Your task to perform on an android device: What's on my calendar today? Image 0: 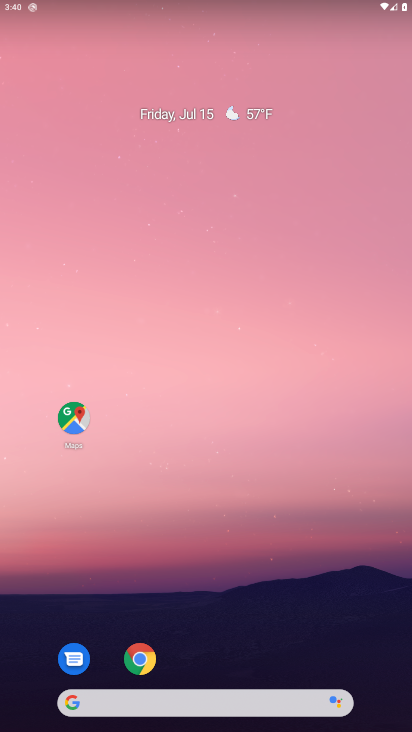
Step 0: drag from (32, 697) to (295, 49)
Your task to perform on an android device: What's on my calendar today? Image 1: 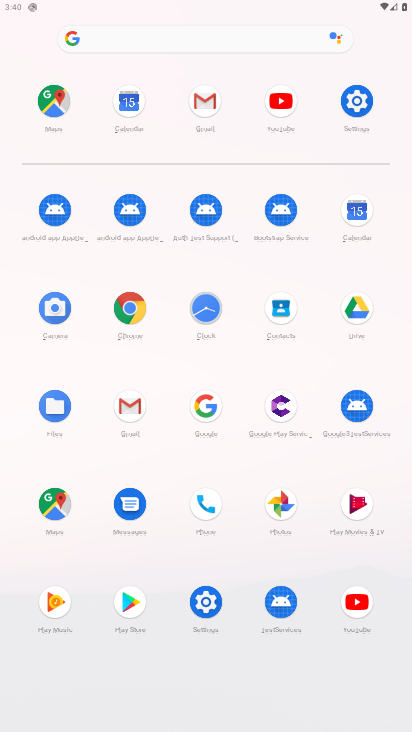
Step 1: click (356, 205)
Your task to perform on an android device: What's on my calendar today? Image 2: 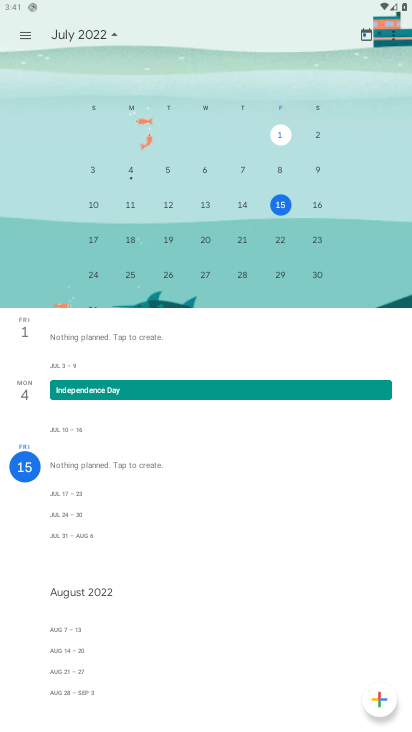
Step 2: task complete